Your task to perform on an android device: turn off location Image 0: 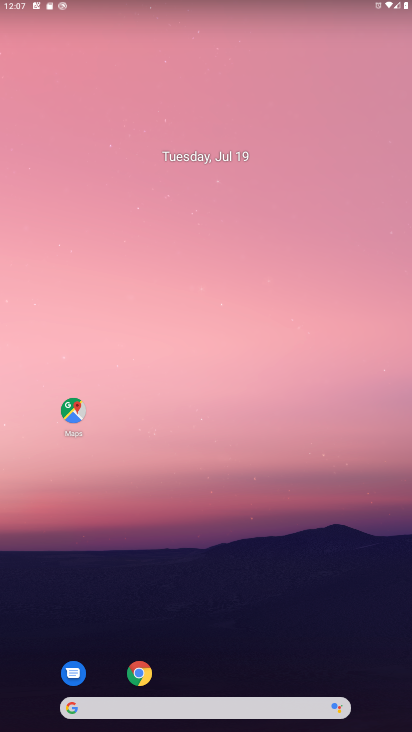
Step 0: drag from (210, 622) to (219, 140)
Your task to perform on an android device: turn off location Image 1: 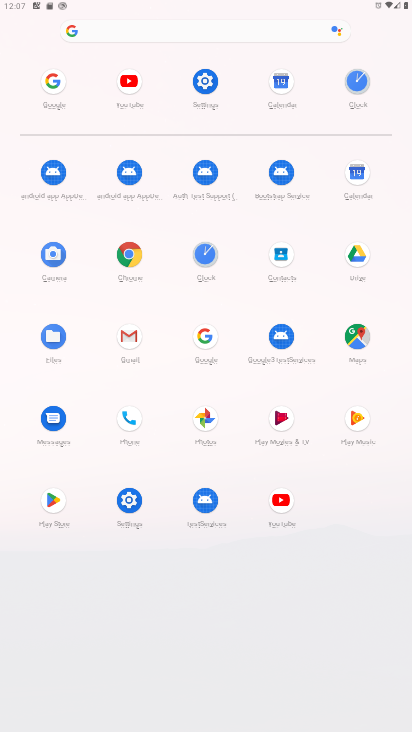
Step 1: click (207, 99)
Your task to perform on an android device: turn off location Image 2: 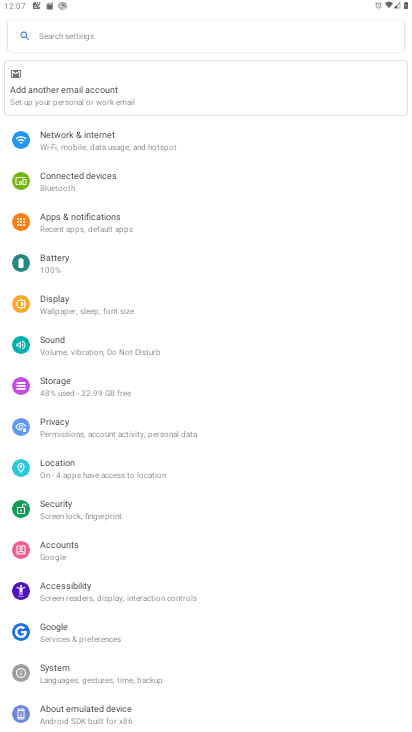
Step 2: click (112, 475)
Your task to perform on an android device: turn off location Image 3: 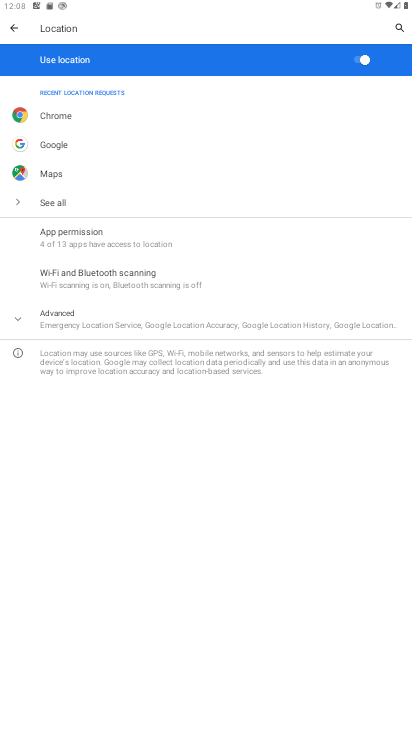
Step 3: click (345, 52)
Your task to perform on an android device: turn off location Image 4: 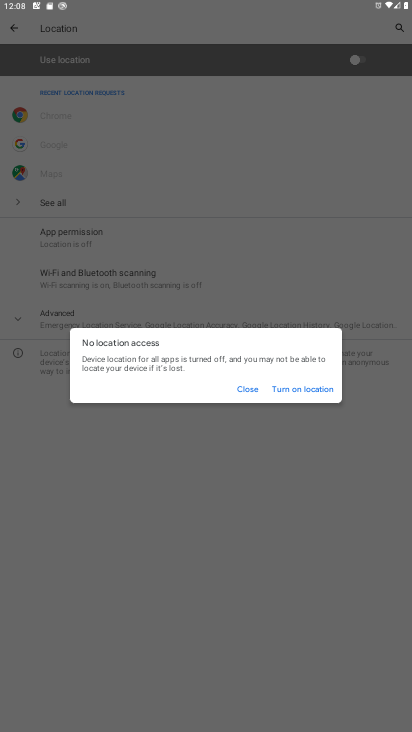
Step 4: click (236, 382)
Your task to perform on an android device: turn off location Image 5: 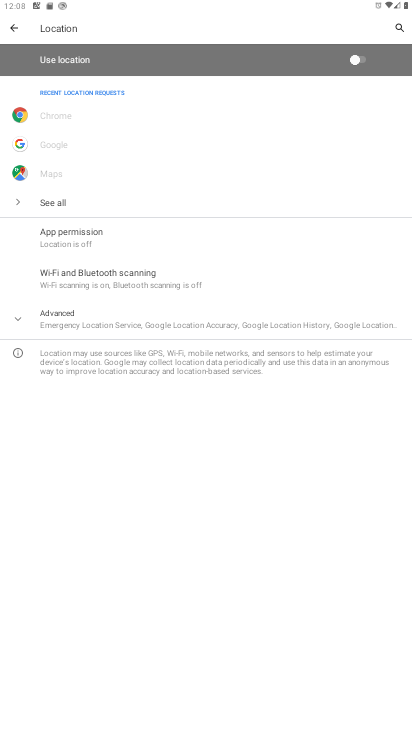
Step 5: task complete